Your task to perform on an android device: Go to Google Image 0: 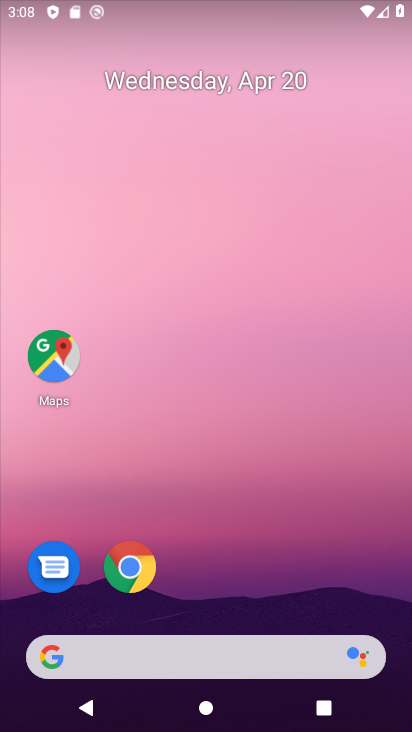
Step 0: click (104, 643)
Your task to perform on an android device: Go to Google Image 1: 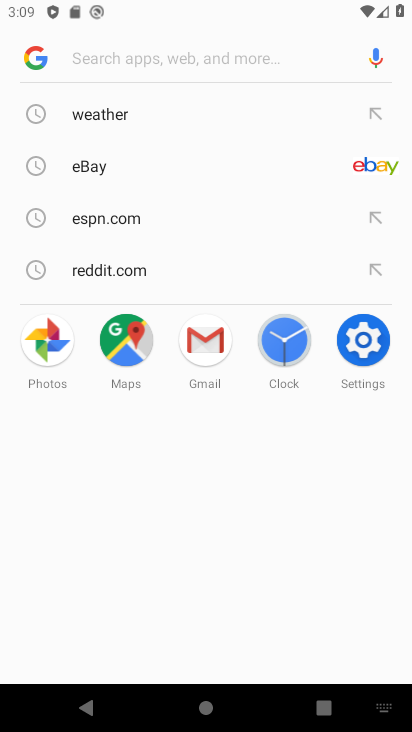
Step 1: click (36, 64)
Your task to perform on an android device: Go to Google Image 2: 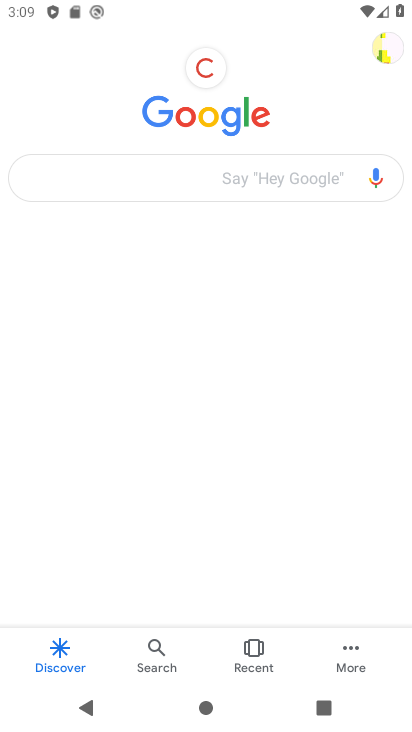
Step 2: task complete